Your task to perform on an android device: delete a single message in the gmail app Image 0: 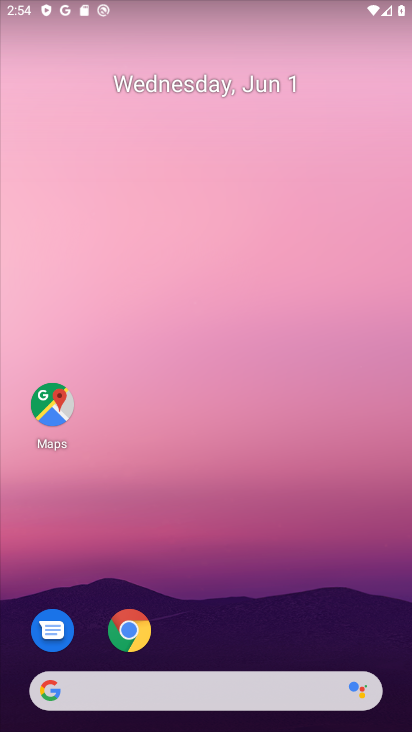
Step 0: drag from (216, 538) to (257, 159)
Your task to perform on an android device: delete a single message in the gmail app Image 1: 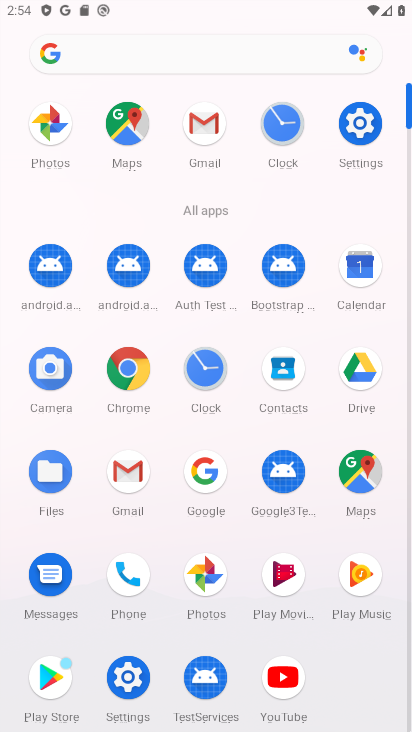
Step 1: click (201, 129)
Your task to perform on an android device: delete a single message in the gmail app Image 2: 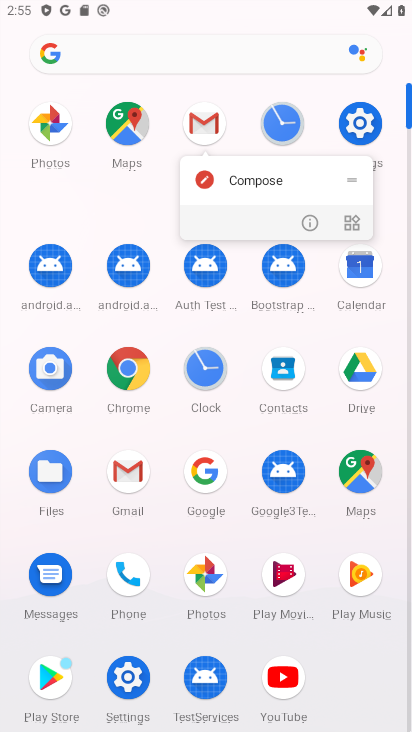
Step 2: click (199, 128)
Your task to perform on an android device: delete a single message in the gmail app Image 3: 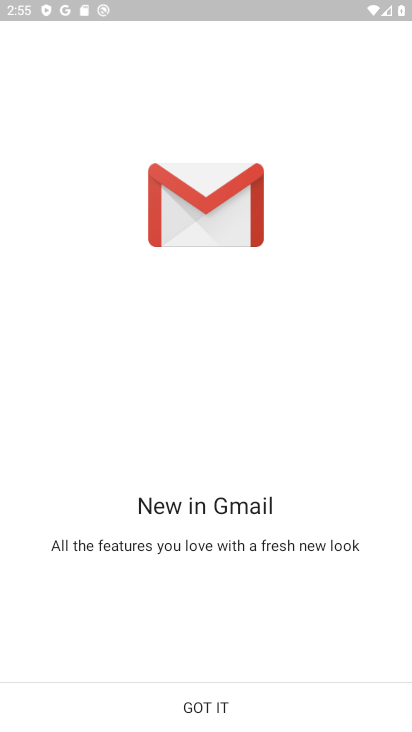
Step 3: click (221, 691)
Your task to perform on an android device: delete a single message in the gmail app Image 4: 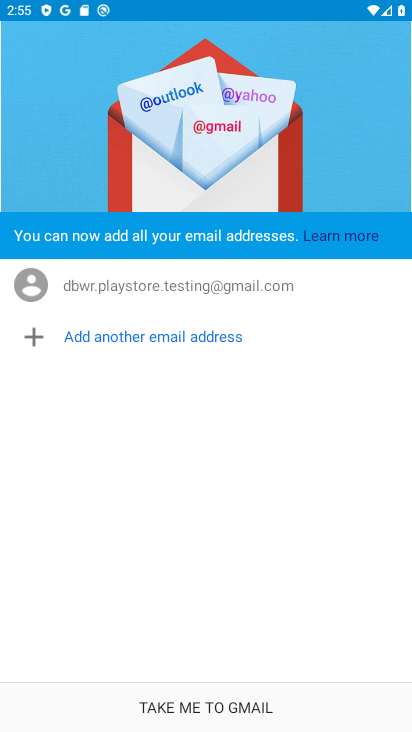
Step 4: click (213, 694)
Your task to perform on an android device: delete a single message in the gmail app Image 5: 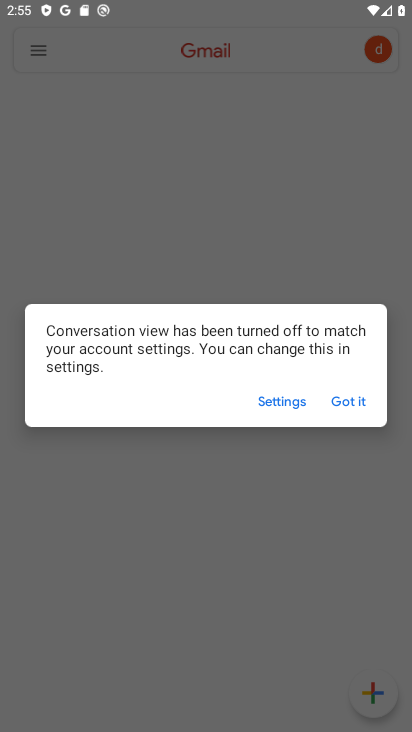
Step 5: click (347, 405)
Your task to perform on an android device: delete a single message in the gmail app Image 6: 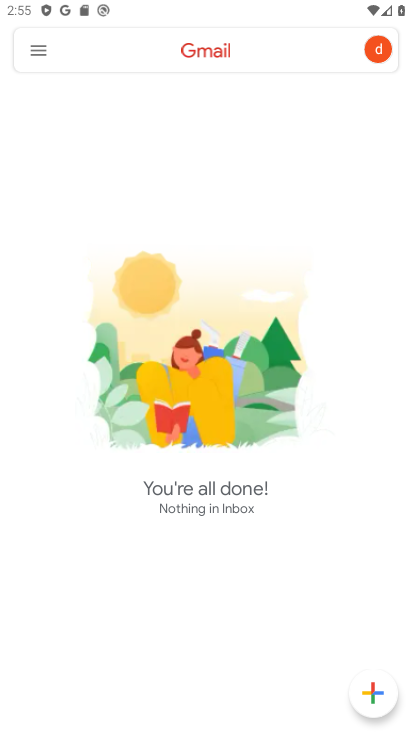
Step 6: click (34, 49)
Your task to perform on an android device: delete a single message in the gmail app Image 7: 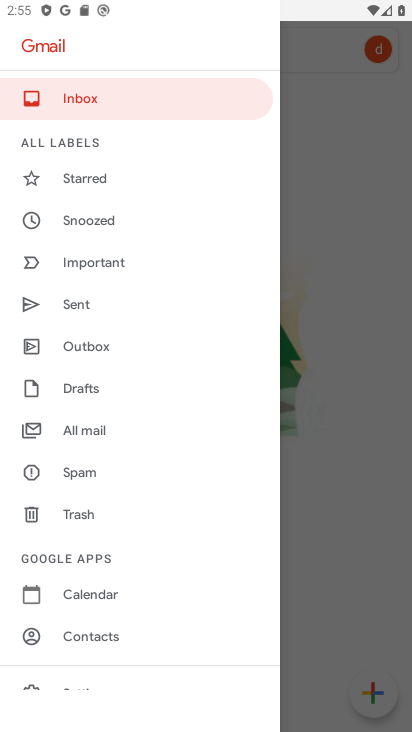
Step 7: click (110, 426)
Your task to perform on an android device: delete a single message in the gmail app Image 8: 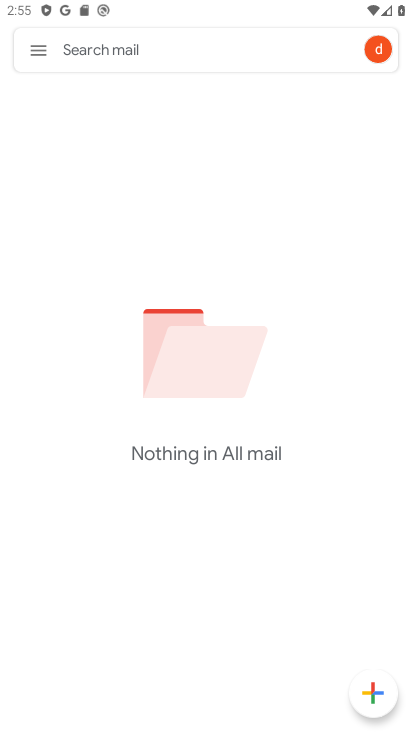
Step 8: task complete